Your task to perform on an android device: star an email in the gmail app Image 0: 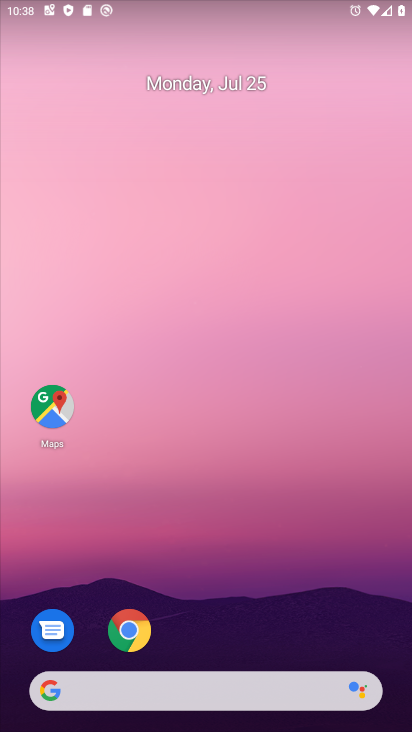
Step 0: drag from (242, 681) to (192, 261)
Your task to perform on an android device: star an email in the gmail app Image 1: 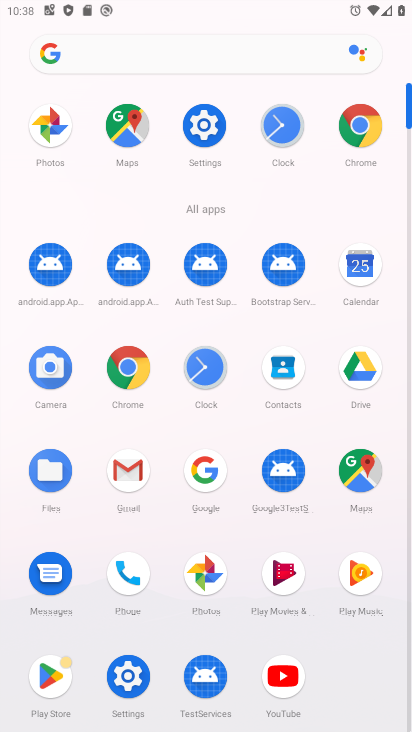
Step 1: click (127, 474)
Your task to perform on an android device: star an email in the gmail app Image 2: 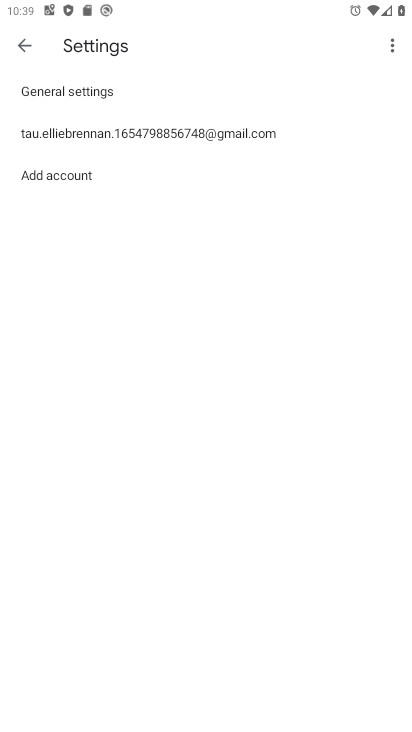
Step 2: click (21, 32)
Your task to perform on an android device: star an email in the gmail app Image 3: 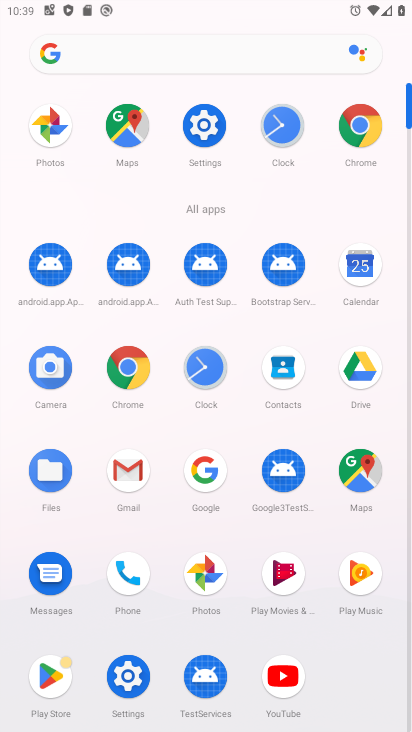
Step 3: click (110, 466)
Your task to perform on an android device: star an email in the gmail app Image 4: 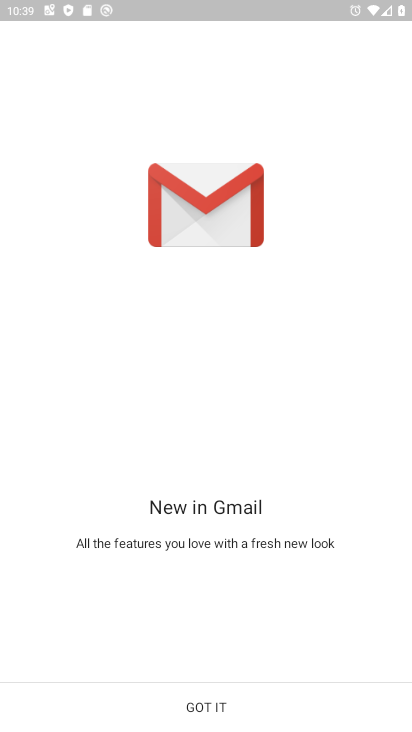
Step 4: click (210, 698)
Your task to perform on an android device: star an email in the gmail app Image 5: 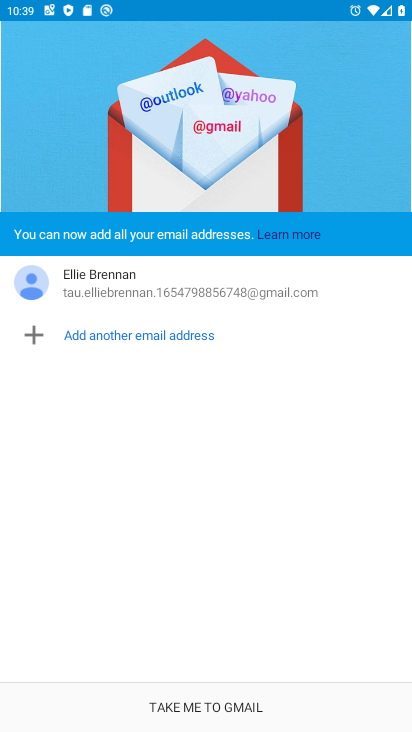
Step 5: click (197, 702)
Your task to perform on an android device: star an email in the gmail app Image 6: 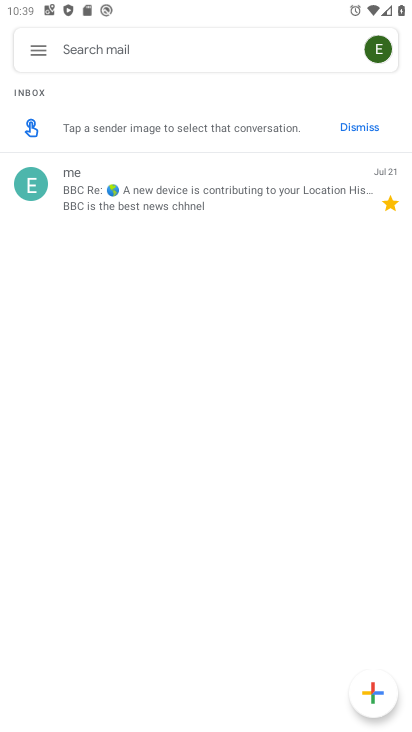
Step 6: task complete